Your task to perform on an android device: Open Google Chrome and open the bookmarks view Image 0: 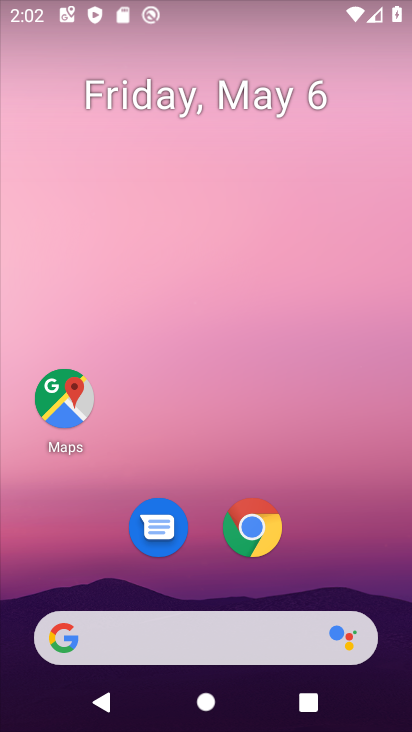
Step 0: click (338, 574)
Your task to perform on an android device: Open Google Chrome and open the bookmarks view Image 1: 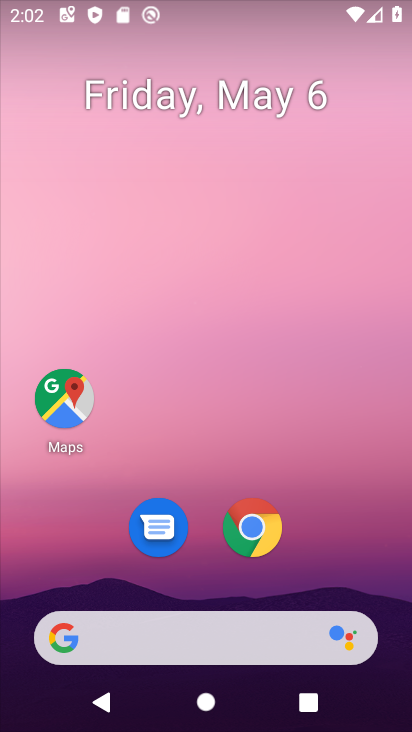
Step 1: click (261, 524)
Your task to perform on an android device: Open Google Chrome and open the bookmarks view Image 2: 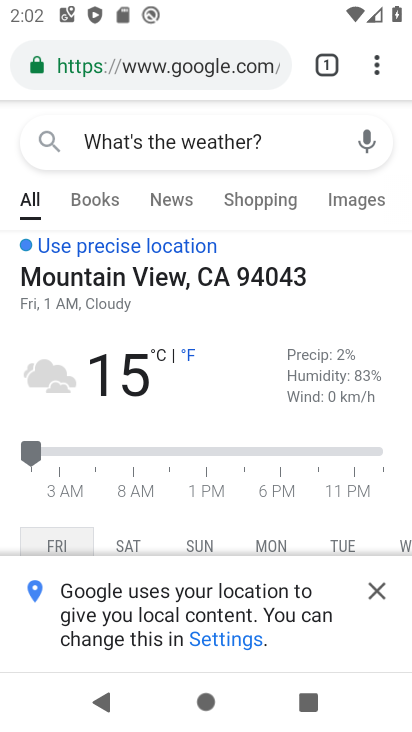
Step 2: task complete